Your task to perform on an android device: turn on priority inbox in the gmail app Image 0: 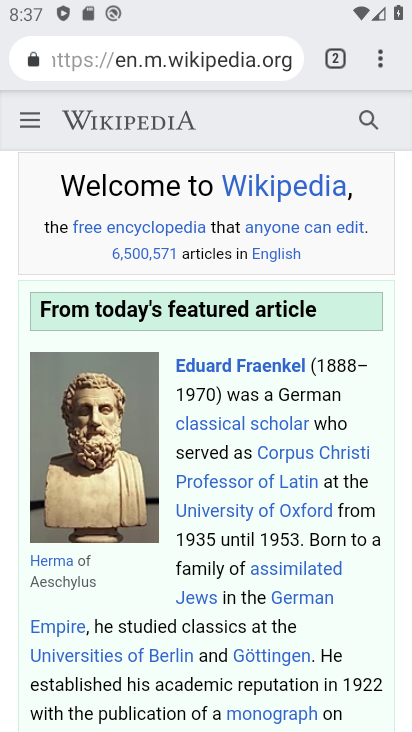
Step 0: press home button
Your task to perform on an android device: turn on priority inbox in the gmail app Image 1: 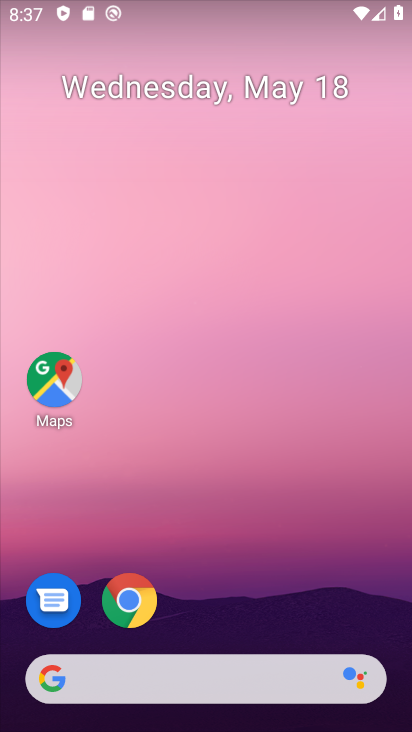
Step 1: drag from (60, 460) to (226, 192)
Your task to perform on an android device: turn on priority inbox in the gmail app Image 2: 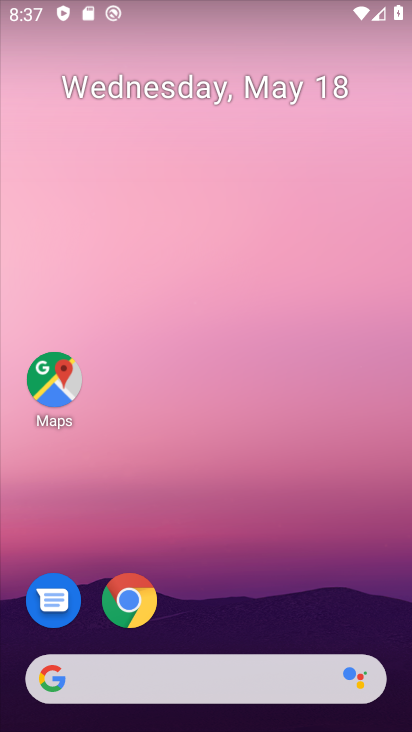
Step 2: drag from (9, 643) to (353, 101)
Your task to perform on an android device: turn on priority inbox in the gmail app Image 3: 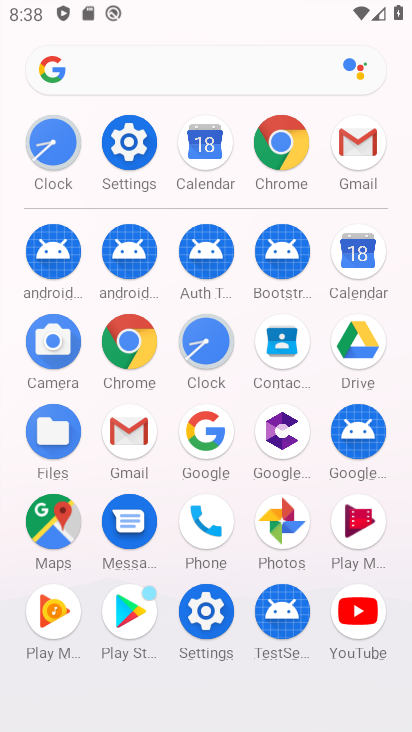
Step 3: click (364, 150)
Your task to perform on an android device: turn on priority inbox in the gmail app Image 4: 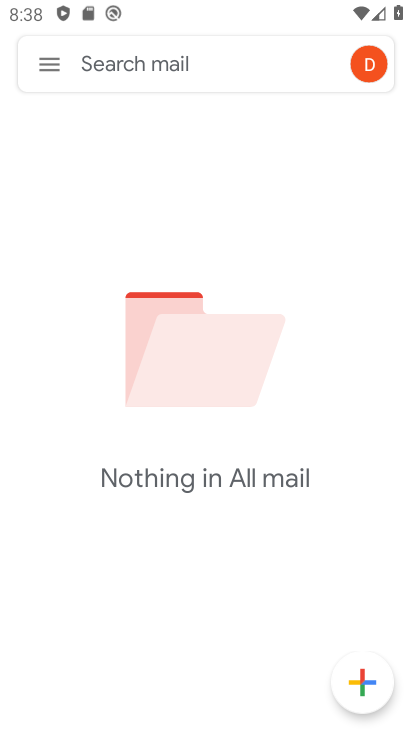
Step 4: click (45, 71)
Your task to perform on an android device: turn on priority inbox in the gmail app Image 5: 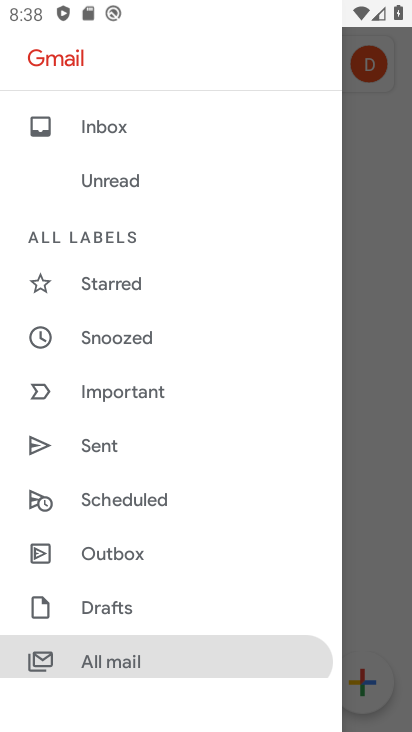
Step 5: drag from (82, 641) to (234, 108)
Your task to perform on an android device: turn on priority inbox in the gmail app Image 6: 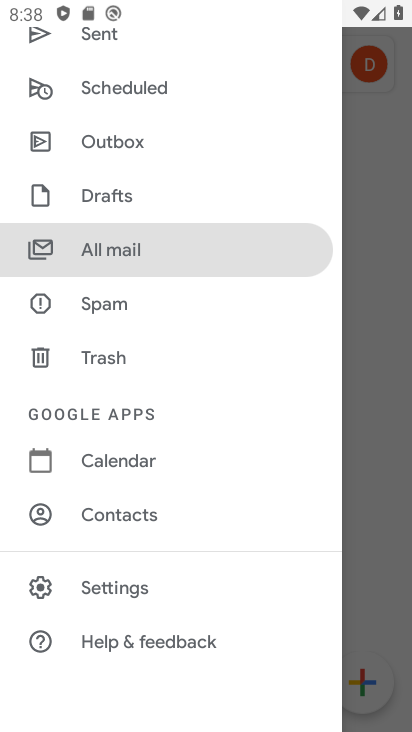
Step 6: click (113, 583)
Your task to perform on an android device: turn on priority inbox in the gmail app Image 7: 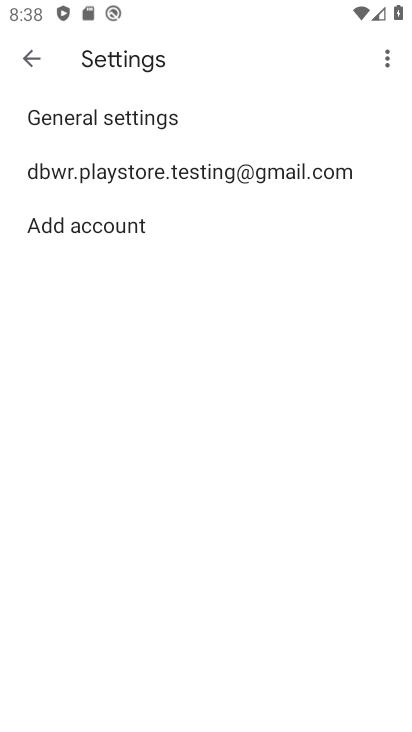
Step 7: click (163, 169)
Your task to perform on an android device: turn on priority inbox in the gmail app Image 8: 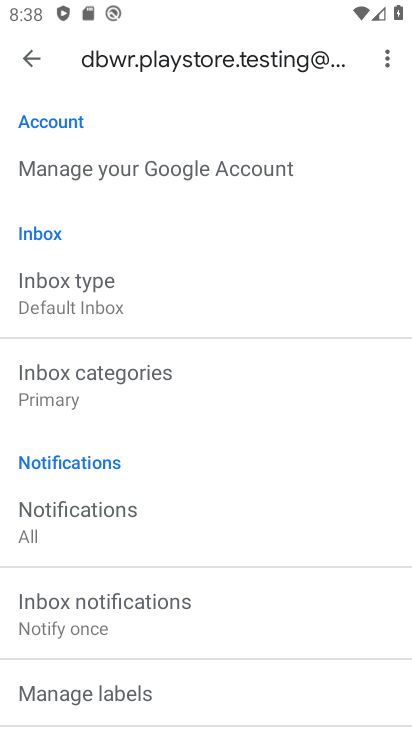
Step 8: click (98, 293)
Your task to perform on an android device: turn on priority inbox in the gmail app Image 9: 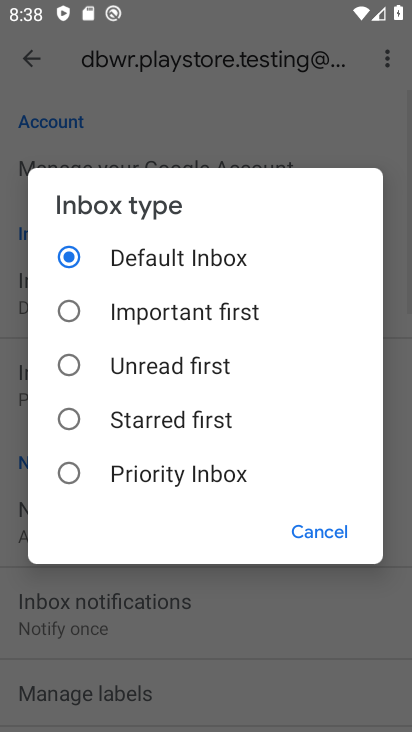
Step 9: click (108, 473)
Your task to perform on an android device: turn on priority inbox in the gmail app Image 10: 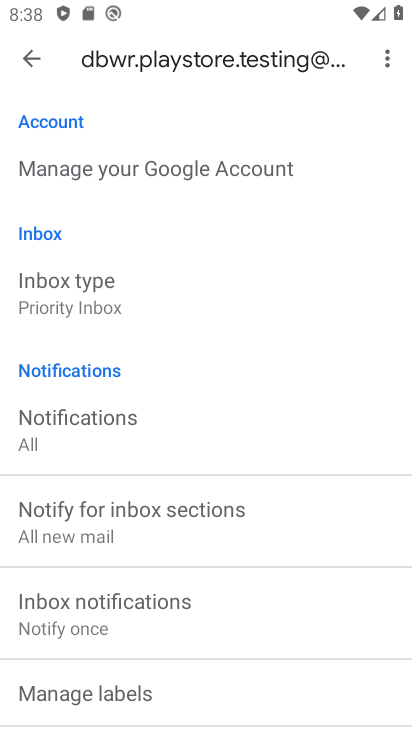
Step 10: task complete